Your task to perform on an android device: change the clock display to analog Image 0: 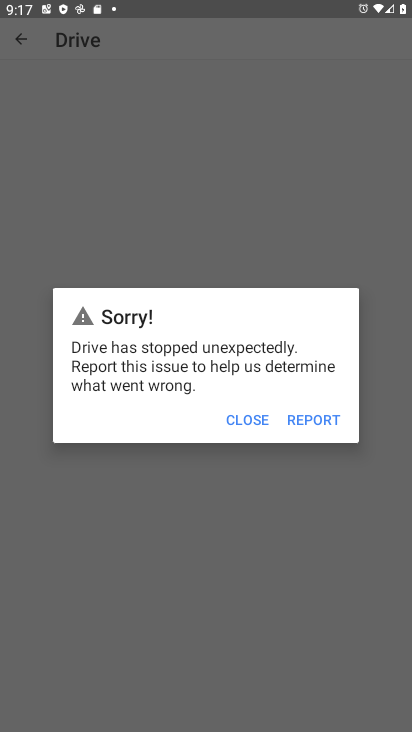
Step 0: click (262, 419)
Your task to perform on an android device: change the clock display to analog Image 1: 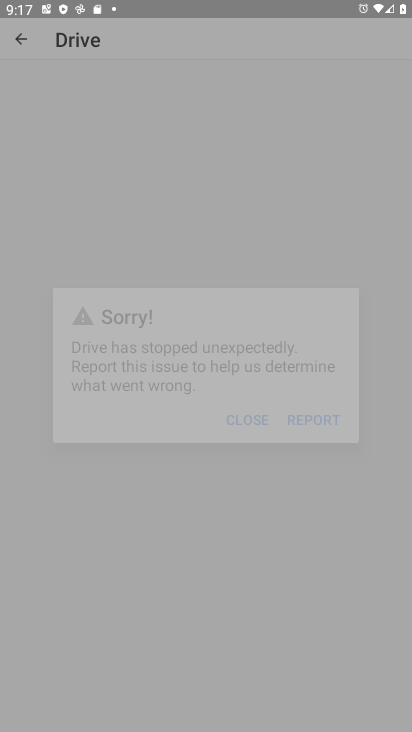
Step 1: click (258, 418)
Your task to perform on an android device: change the clock display to analog Image 2: 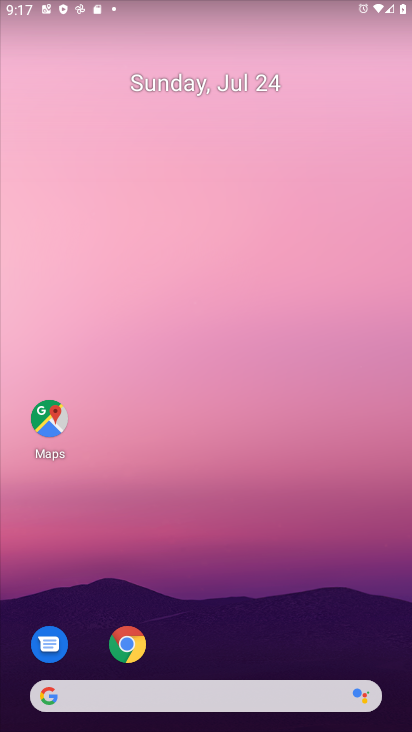
Step 2: drag from (208, 649) to (161, 229)
Your task to perform on an android device: change the clock display to analog Image 3: 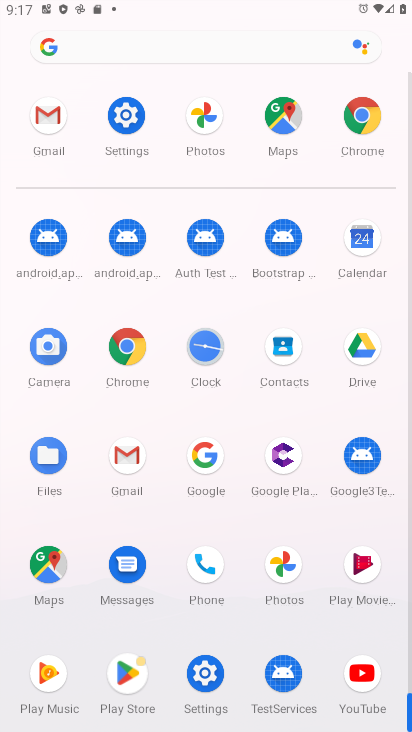
Step 3: click (203, 348)
Your task to perform on an android device: change the clock display to analog Image 4: 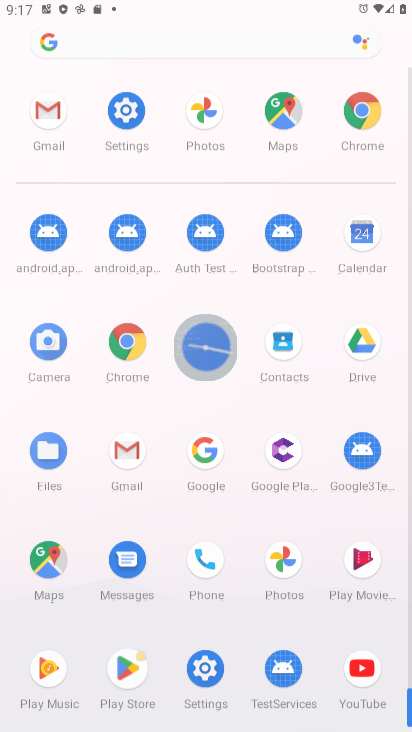
Step 4: click (204, 342)
Your task to perform on an android device: change the clock display to analog Image 5: 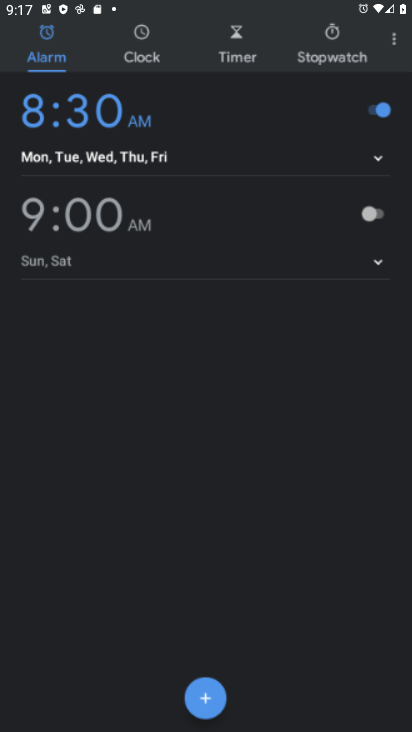
Step 5: click (203, 341)
Your task to perform on an android device: change the clock display to analog Image 6: 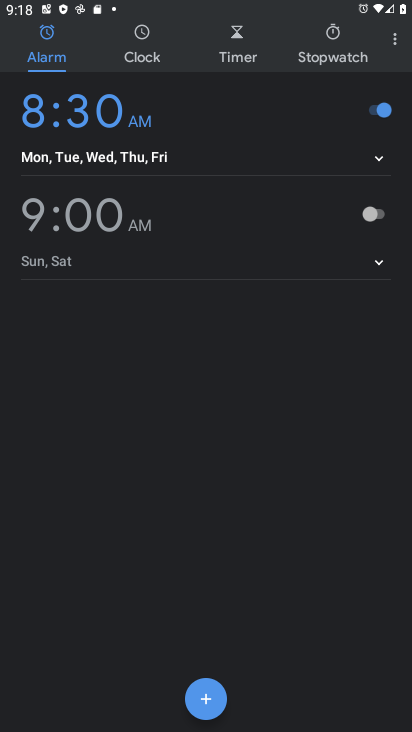
Step 6: click (399, 40)
Your task to perform on an android device: change the clock display to analog Image 7: 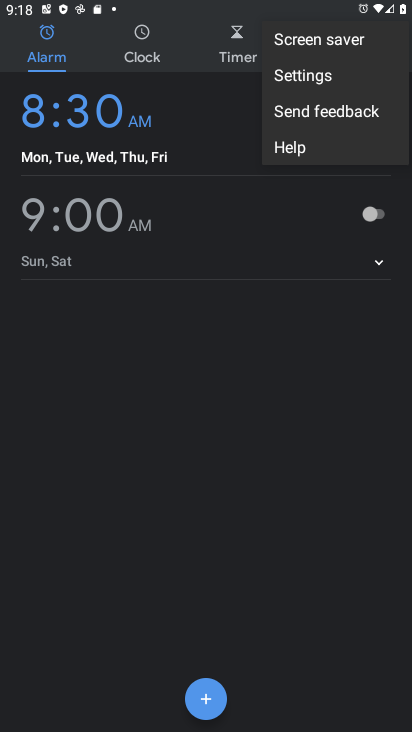
Step 7: click (287, 65)
Your task to perform on an android device: change the clock display to analog Image 8: 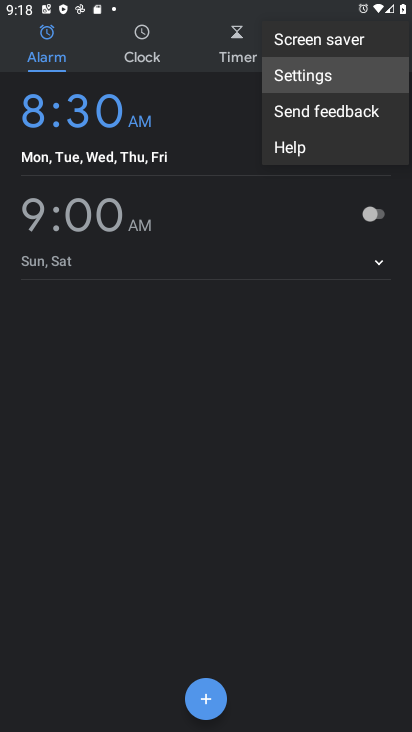
Step 8: click (306, 80)
Your task to perform on an android device: change the clock display to analog Image 9: 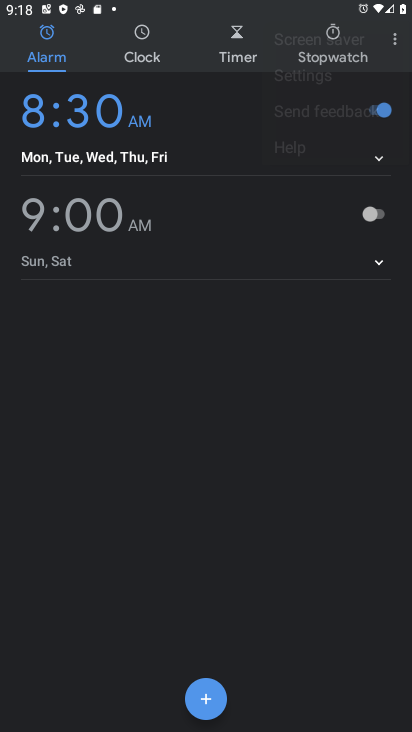
Step 9: click (314, 92)
Your task to perform on an android device: change the clock display to analog Image 10: 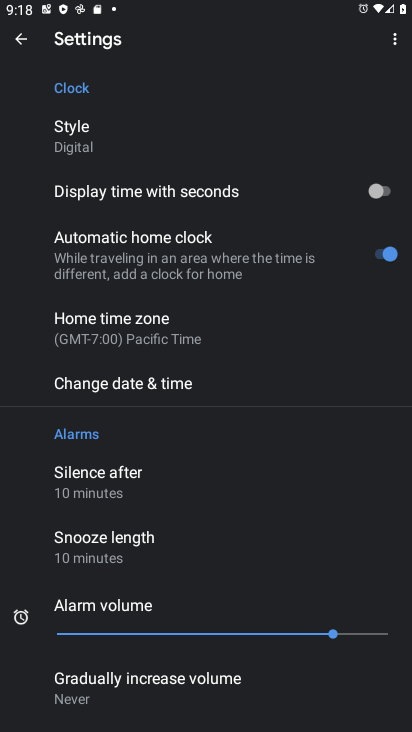
Step 10: click (89, 135)
Your task to perform on an android device: change the clock display to analog Image 11: 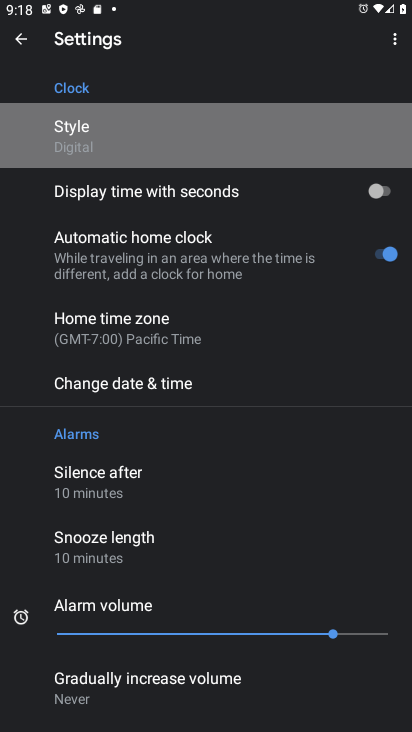
Step 11: click (86, 136)
Your task to perform on an android device: change the clock display to analog Image 12: 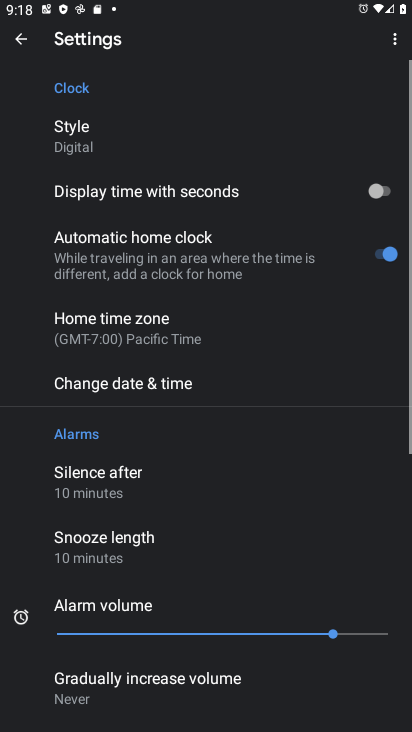
Step 12: click (94, 130)
Your task to perform on an android device: change the clock display to analog Image 13: 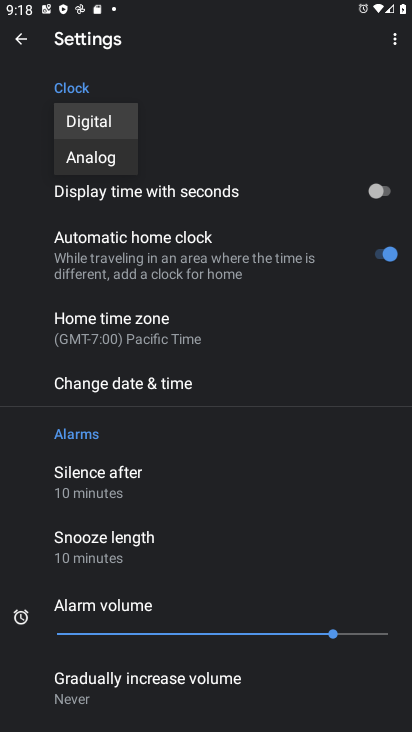
Step 13: click (98, 153)
Your task to perform on an android device: change the clock display to analog Image 14: 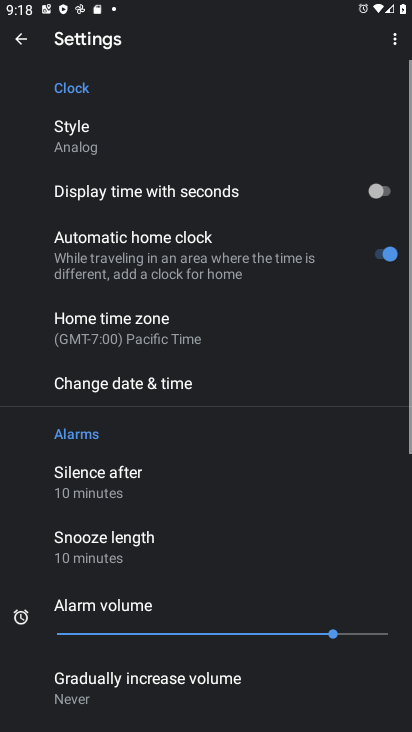
Step 14: task complete